Your task to perform on an android device: Open Yahoo.com Image 0: 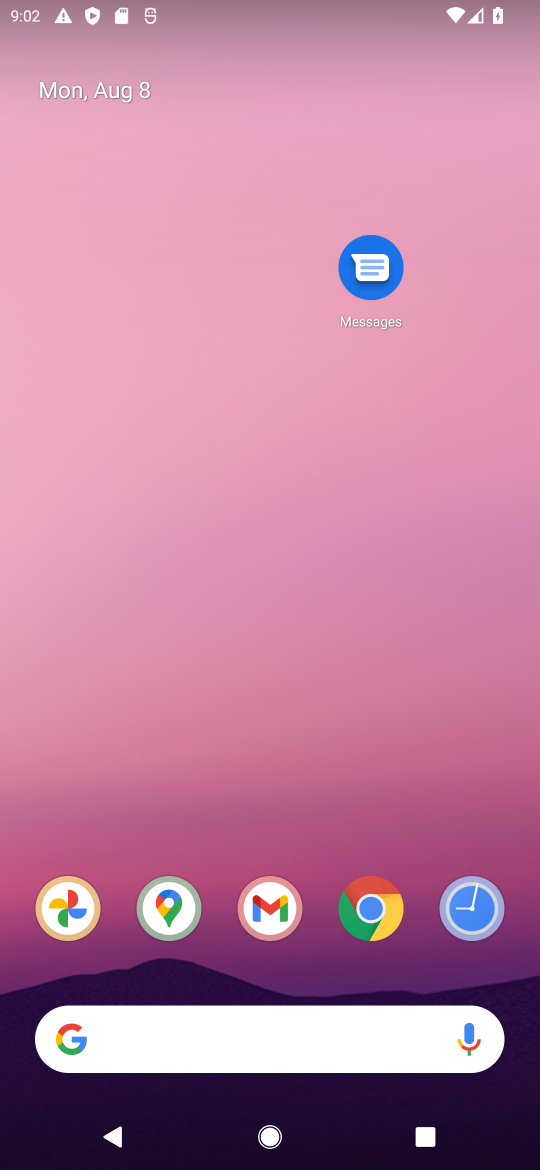
Step 0: click (359, 924)
Your task to perform on an android device: Open Yahoo.com Image 1: 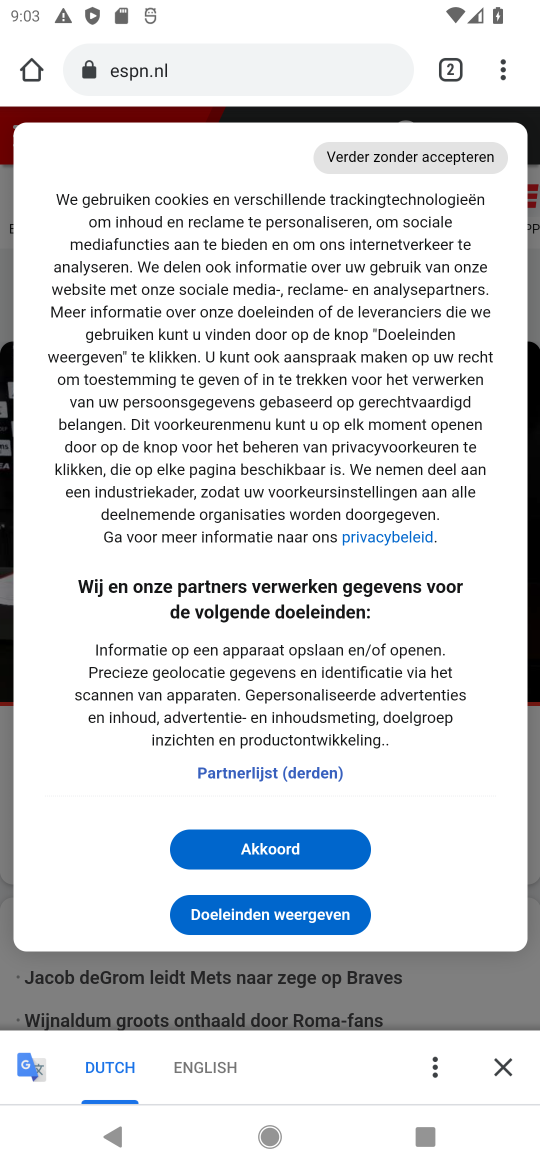
Step 1: click (496, 76)
Your task to perform on an android device: Open Yahoo.com Image 2: 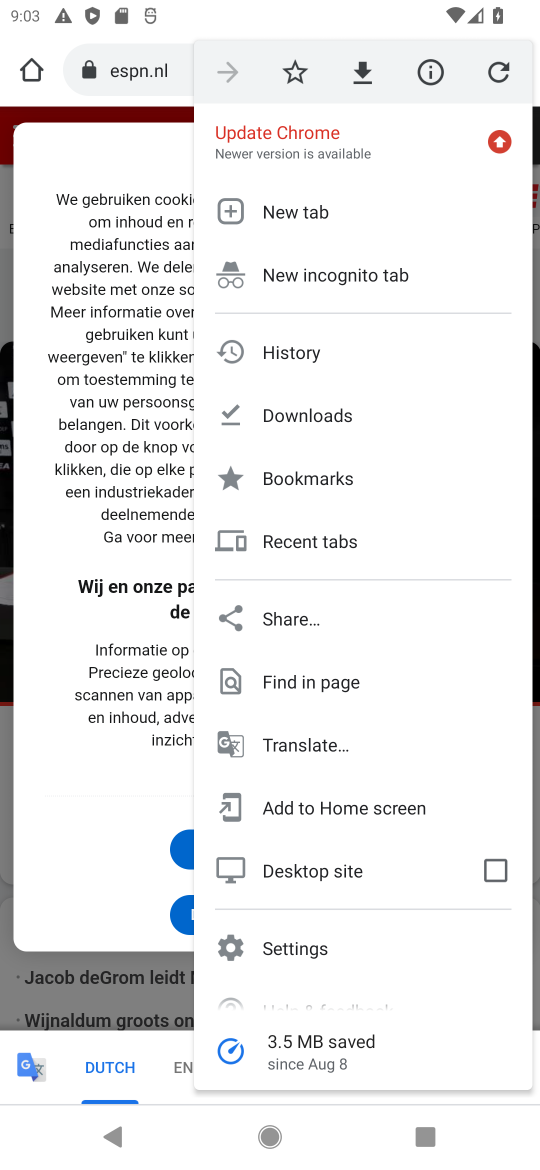
Step 2: click (32, 84)
Your task to perform on an android device: Open Yahoo.com Image 3: 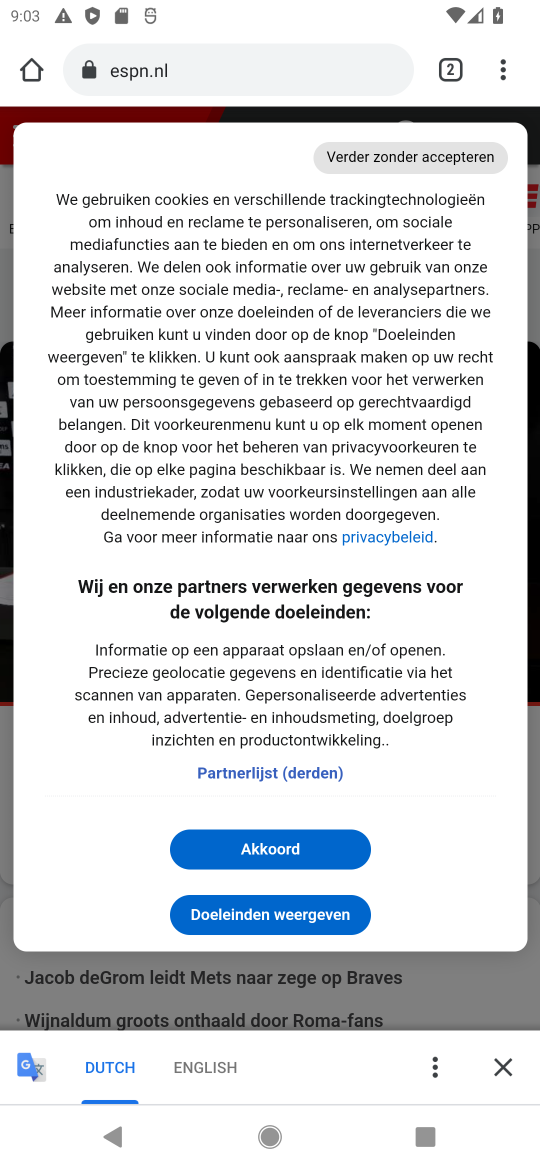
Step 3: click (32, 84)
Your task to perform on an android device: Open Yahoo.com Image 4: 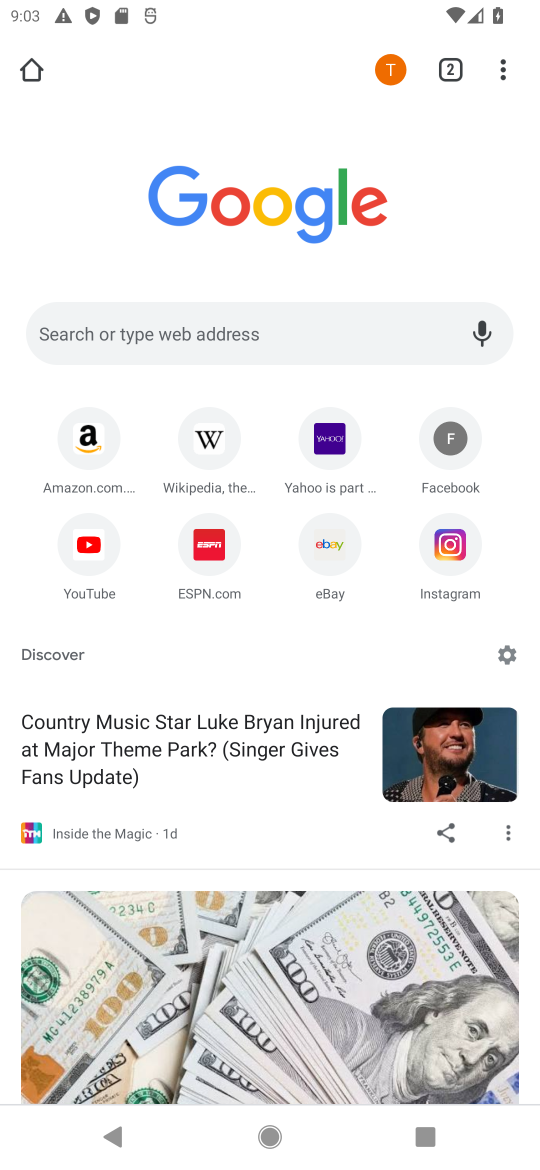
Step 4: click (315, 439)
Your task to perform on an android device: Open Yahoo.com Image 5: 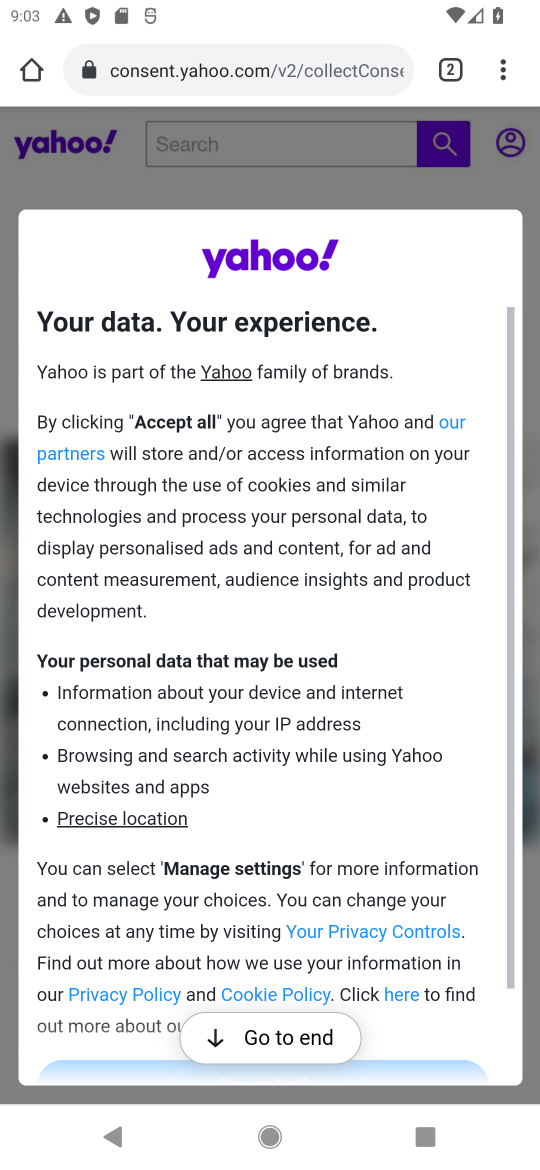
Step 5: task complete